Your task to perform on an android device: turn off notifications settings in the gmail app Image 0: 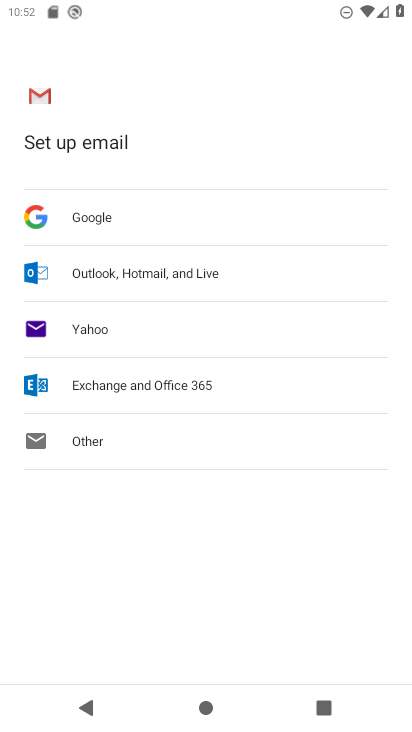
Step 0: press home button
Your task to perform on an android device: turn off notifications settings in the gmail app Image 1: 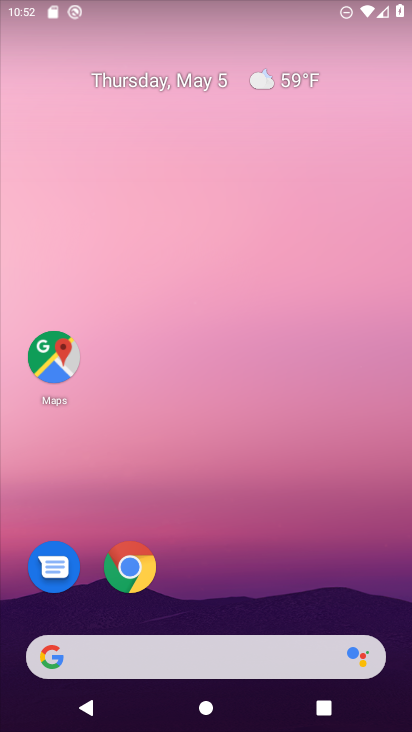
Step 1: drag from (230, 534) to (118, 137)
Your task to perform on an android device: turn off notifications settings in the gmail app Image 2: 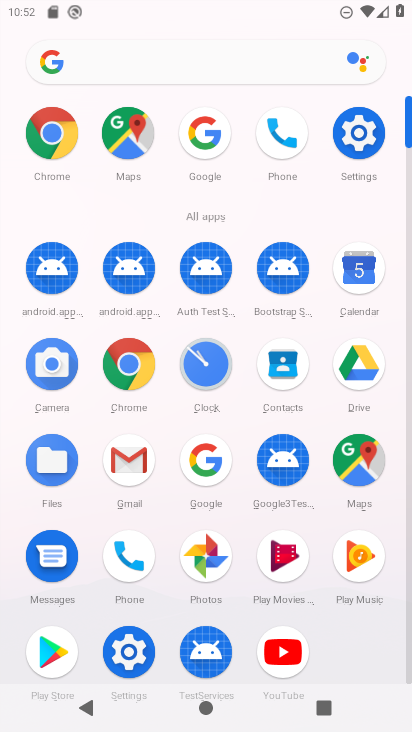
Step 2: click (134, 467)
Your task to perform on an android device: turn off notifications settings in the gmail app Image 3: 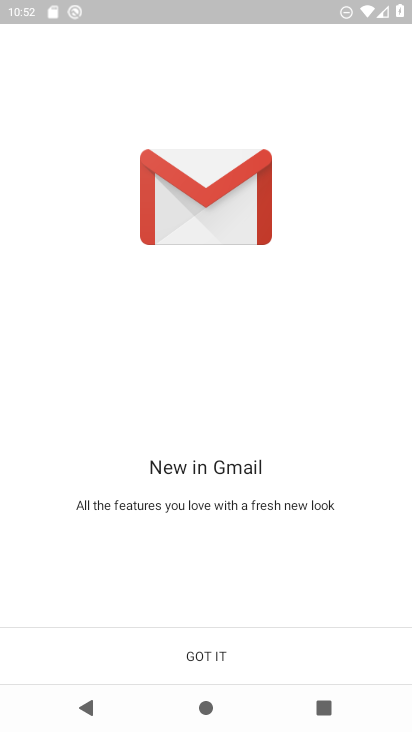
Step 3: click (201, 654)
Your task to perform on an android device: turn off notifications settings in the gmail app Image 4: 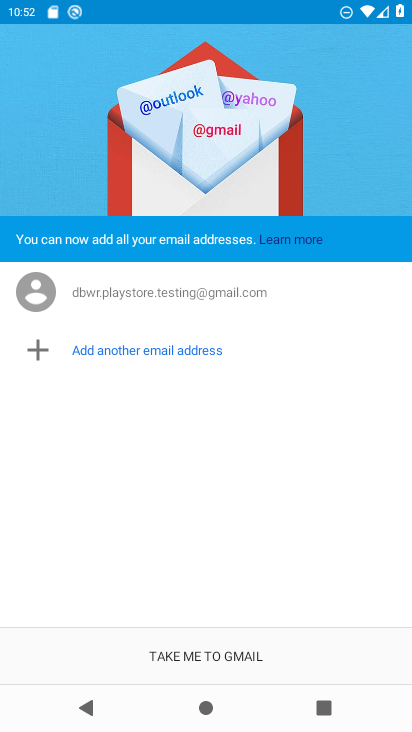
Step 4: click (201, 654)
Your task to perform on an android device: turn off notifications settings in the gmail app Image 5: 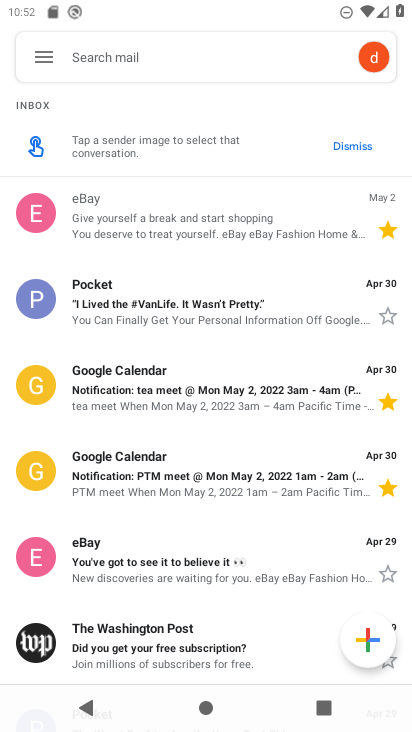
Step 5: click (44, 57)
Your task to perform on an android device: turn off notifications settings in the gmail app Image 6: 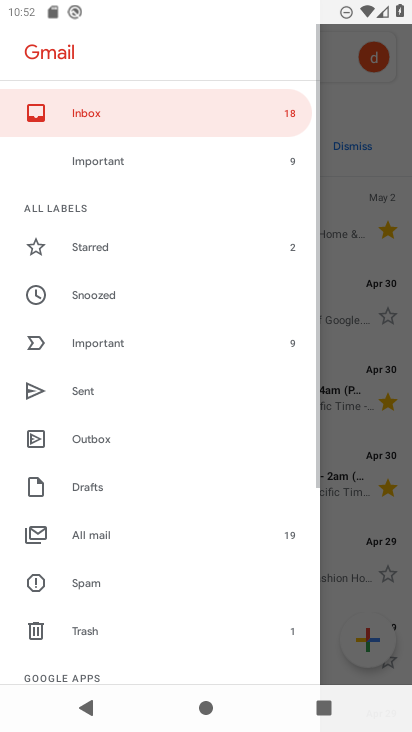
Step 6: drag from (112, 660) to (89, 131)
Your task to perform on an android device: turn off notifications settings in the gmail app Image 7: 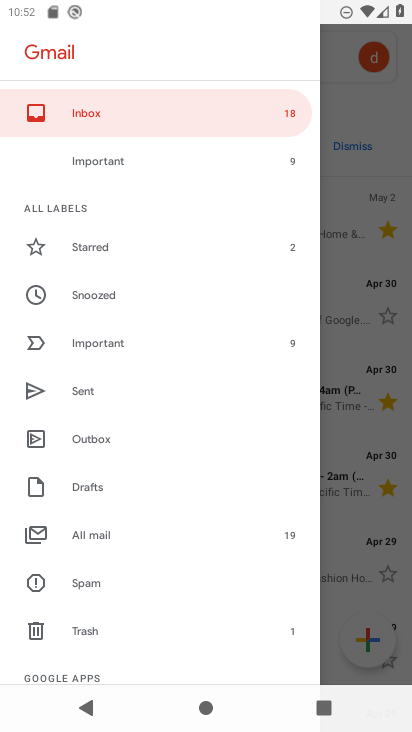
Step 7: drag from (116, 645) to (156, 214)
Your task to perform on an android device: turn off notifications settings in the gmail app Image 8: 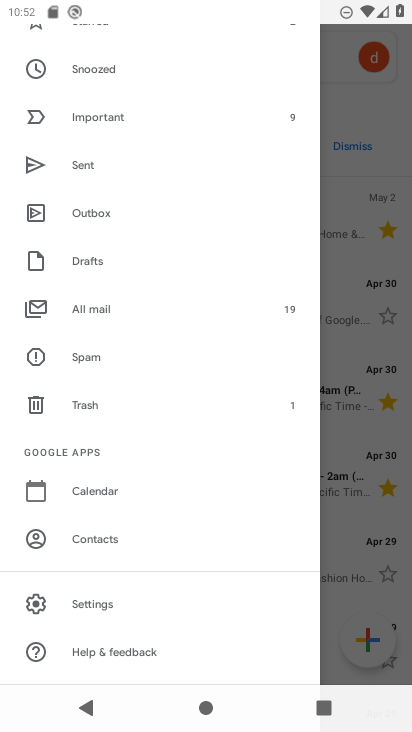
Step 8: click (36, 608)
Your task to perform on an android device: turn off notifications settings in the gmail app Image 9: 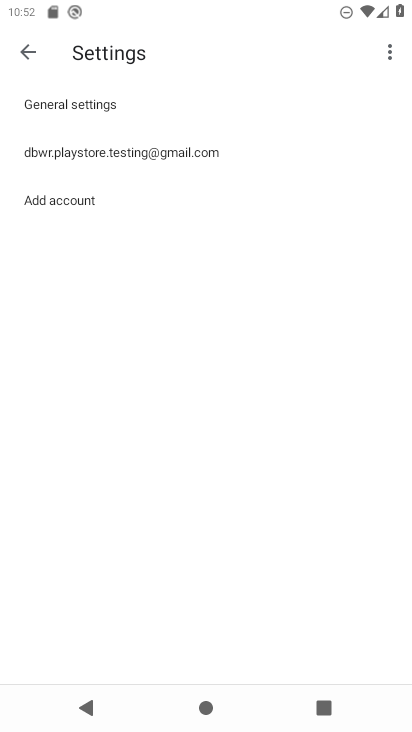
Step 9: click (93, 145)
Your task to perform on an android device: turn off notifications settings in the gmail app Image 10: 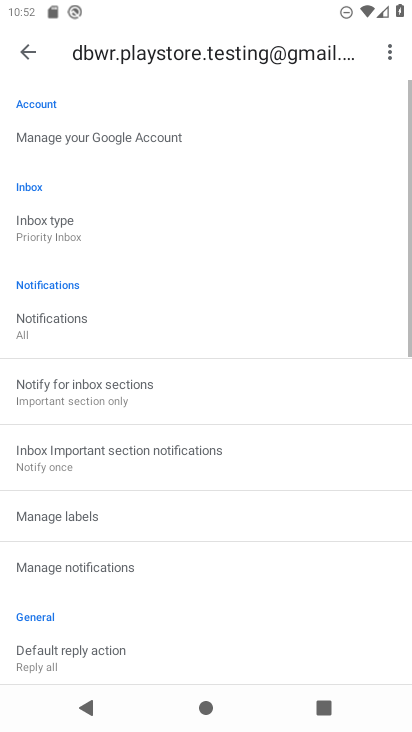
Step 10: drag from (114, 633) to (114, 231)
Your task to perform on an android device: turn off notifications settings in the gmail app Image 11: 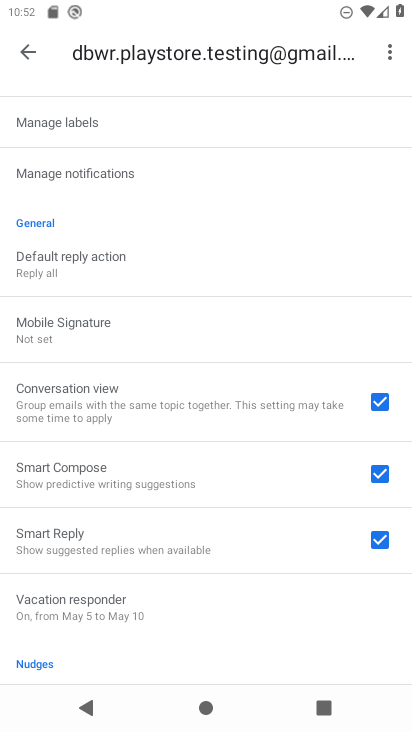
Step 11: click (64, 165)
Your task to perform on an android device: turn off notifications settings in the gmail app Image 12: 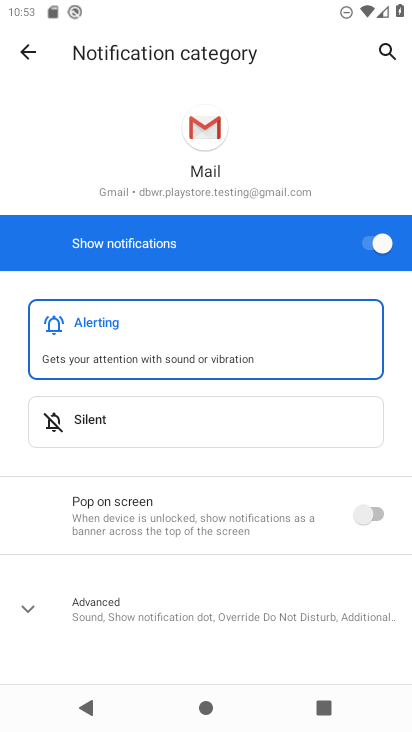
Step 12: click (388, 245)
Your task to perform on an android device: turn off notifications settings in the gmail app Image 13: 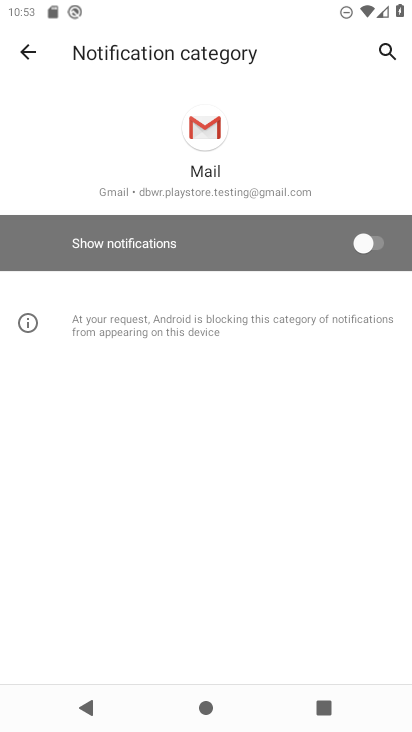
Step 13: task complete